Your task to perform on an android device: open chrome privacy settings Image 0: 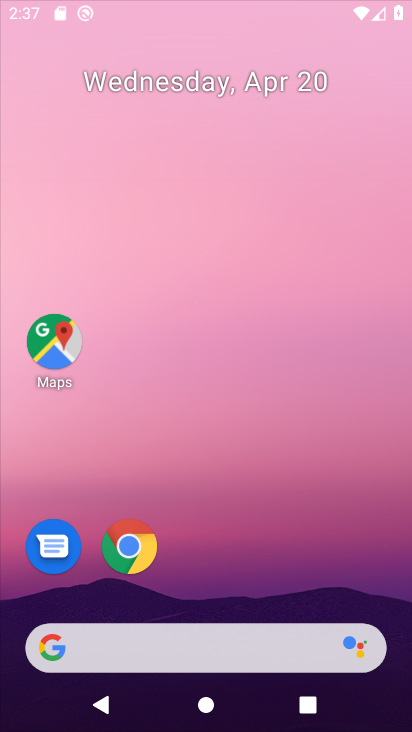
Step 0: drag from (286, 443) to (291, 284)
Your task to perform on an android device: open chrome privacy settings Image 1: 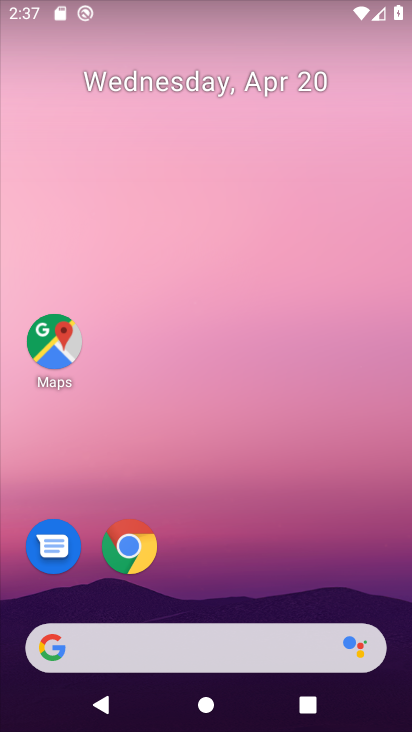
Step 1: drag from (247, 459) to (247, 241)
Your task to perform on an android device: open chrome privacy settings Image 2: 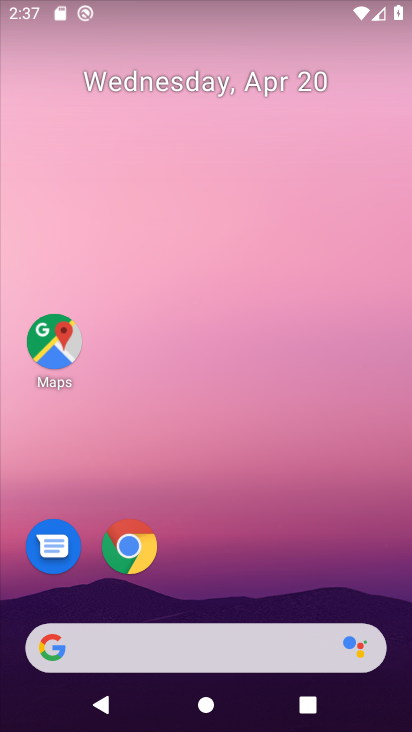
Step 2: click (226, 316)
Your task to perform on an android device: open chrome privacy settings Image 3: 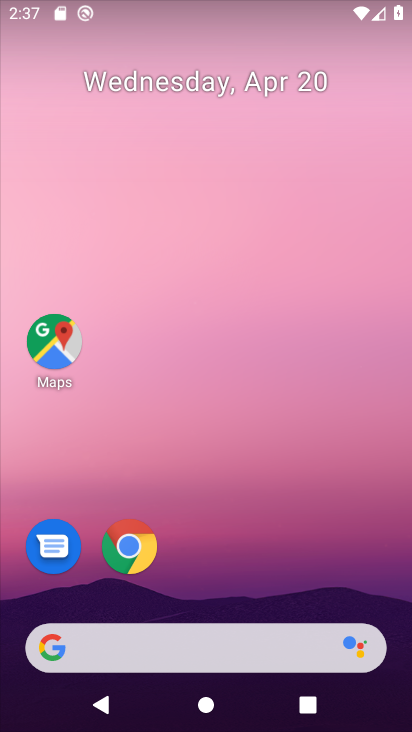
Step 3: drag from (266, 448) to (261, 342)
Your task to perform on an android device: open chrome privacy settings Image 4: 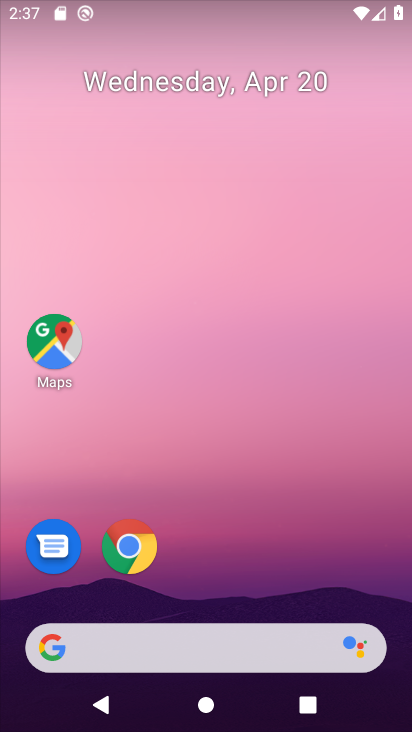
Step 4: drag from (204, 593) to (244, 244)
Your task to perform on an android device: open chrome privacy settings Image 5: 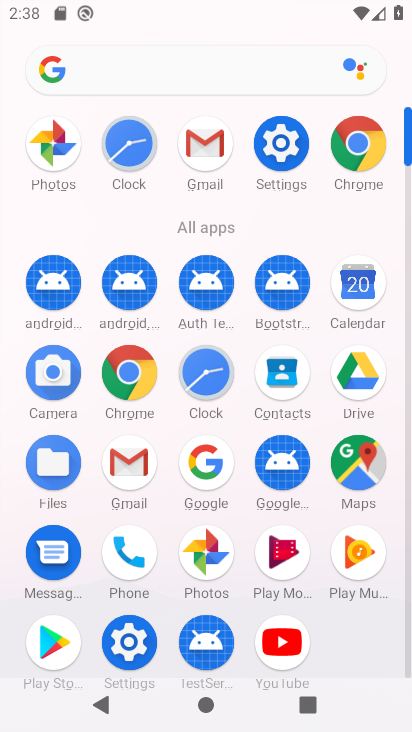
Step 5: click (352, 144)
Your task to perform on an android device: open chrome privacy settings Image 6: 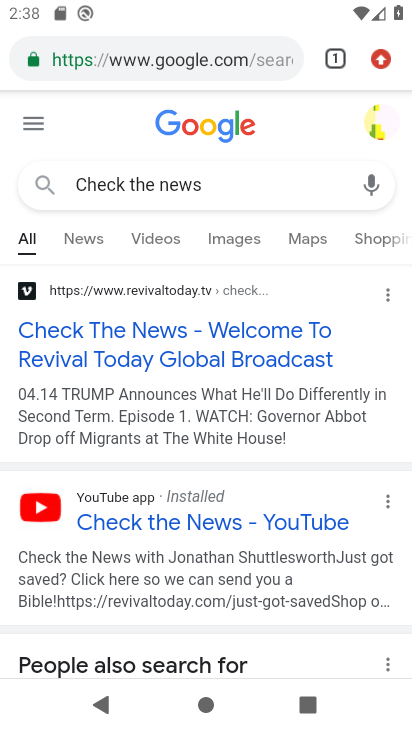
Step 6: click (384, 53)
Your task to perform on an android device: open chrome privacy settings Image 7: 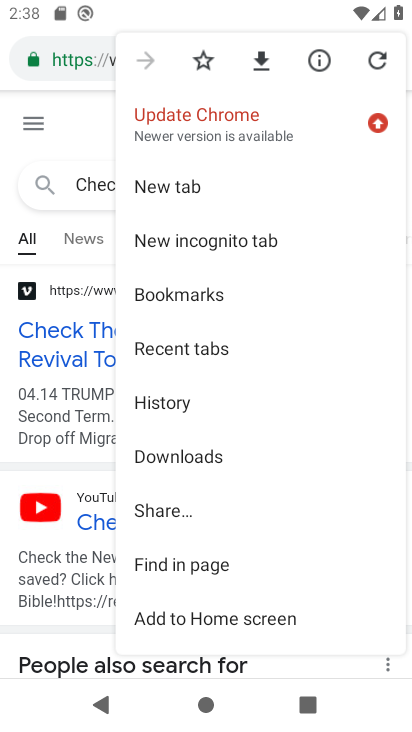
Step 7: drag from (208, 610) to (240, 143)
Your task to perform on an android device: open chrome privacy settings Image 8: 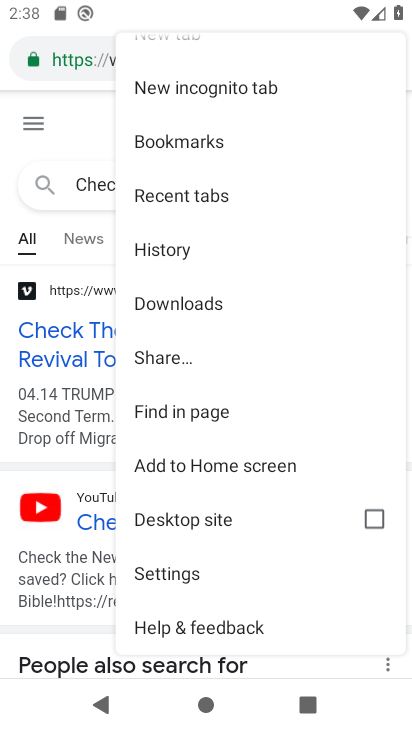
Step 8: click (182, 566)
Your task to perform on an android device: open chrome privacy settings Image 9: 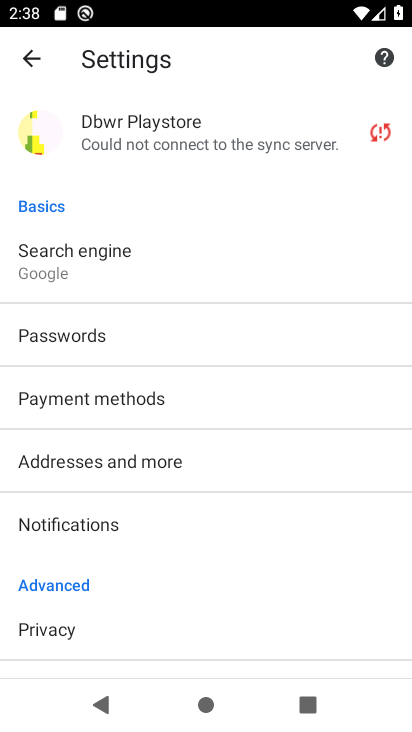
Step 9: drag from (147, 548) to (190, 255)
Your task to perform on an android device: open chrome privacy settings Image 10: 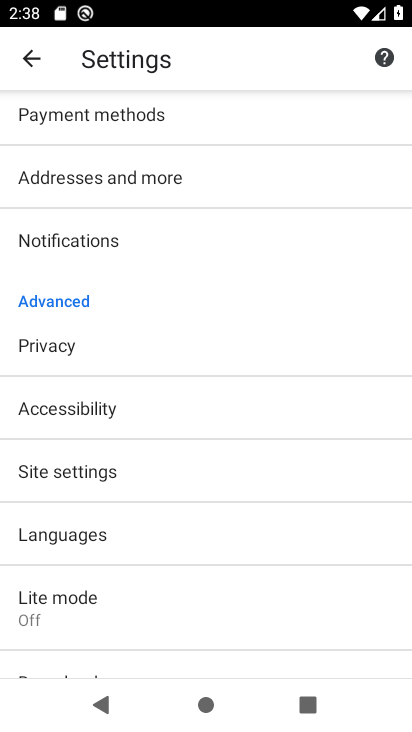
Step 10: click (110, 330)
Your task to perform on an android device: open chrome privacy settings Image 11: 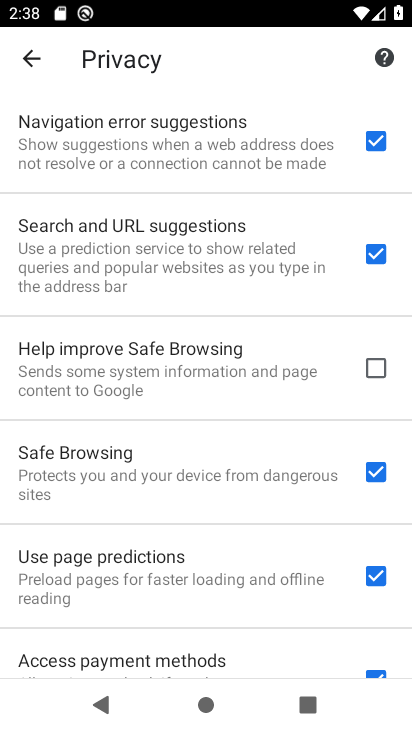
Step 11: task complete